Your task to perform on an android device: move an email to a new category in the gmail app Image 0: 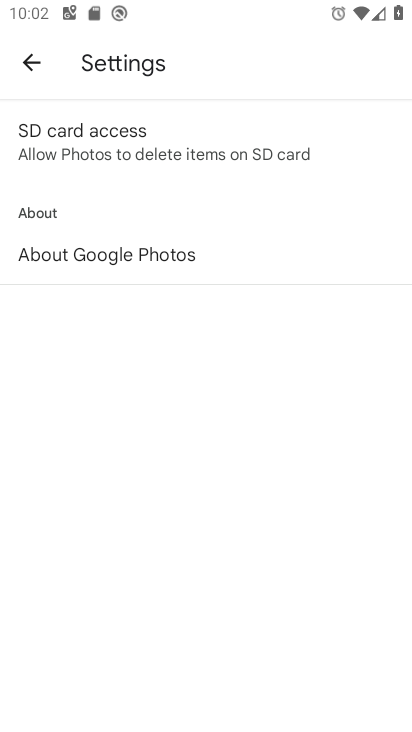
Step 0: press home button
Your task to perform on an android device: move an email to a new category in the gmail app Image 1: 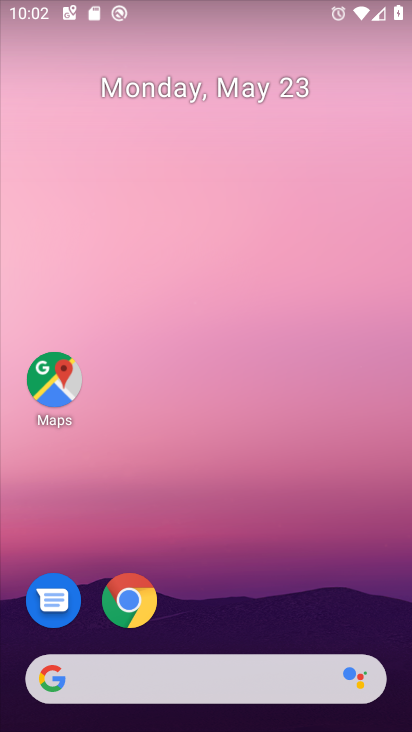
Step 1: drag from (227, 724) to (233, 161)
Your task to perform on an android device: move an email to a new category in the gmail app Image 2: 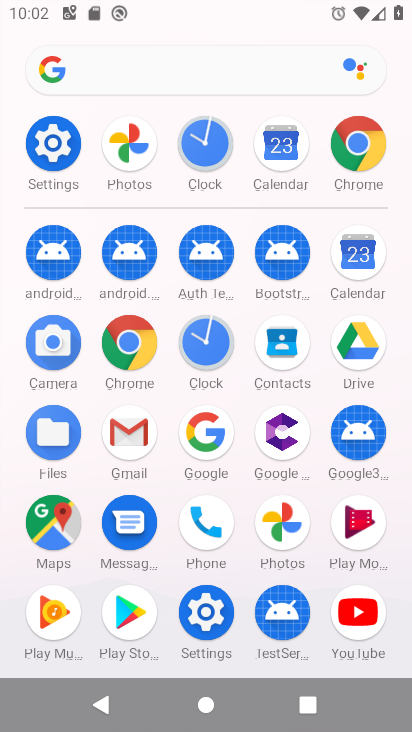
Step 2: click (124, 427)
Your task to perform on an android device: move an email to a new category in the gmail app Image 3: 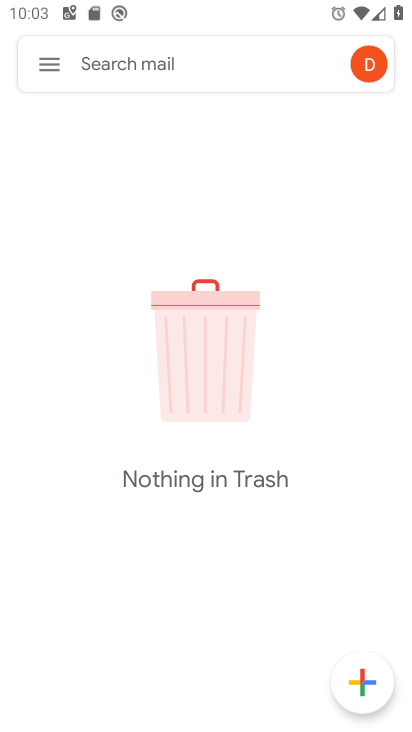
Step 3: click (51, 65)
Your task to perform on an android device: move an email to a new category in the gmail app Image 4: 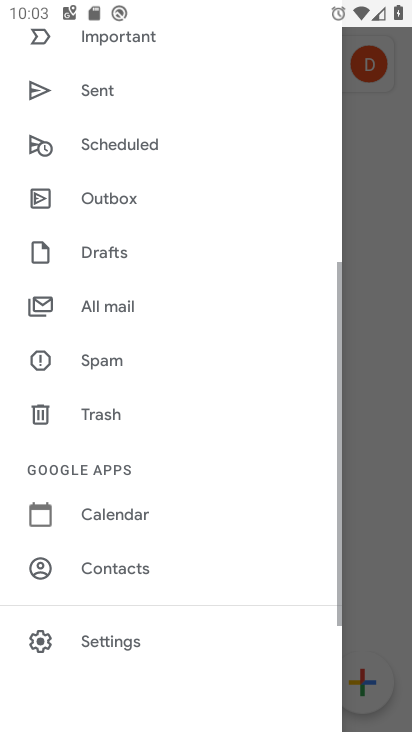
Step 4: drag from (141, 113) to (137, 409)
Your task to perform on an android device: move an email to a new category in the gmail app Image 5: 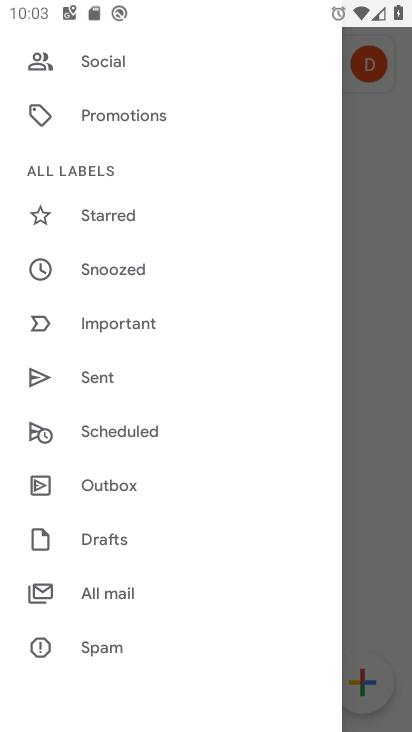
Step 5: drag from (170, 98) to (159, 447)
Your task to perform on an android device: move an email to a new category in the gmail app Image 6: 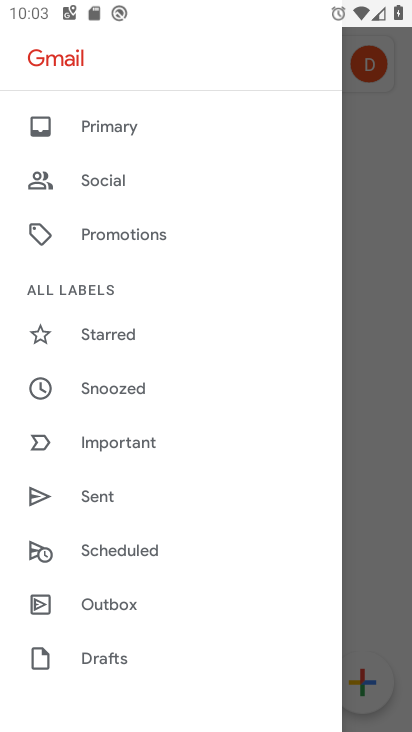
Step 6: click (113, 123)
Your task to perform on an android device: move an email to a new category in the gmail app Image 7: 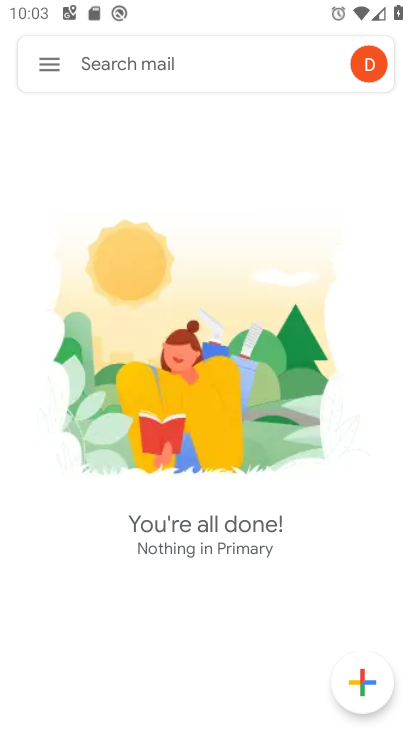
Step 7: task complete